Your task to perform on an android device: Open wifi settings Image 0: 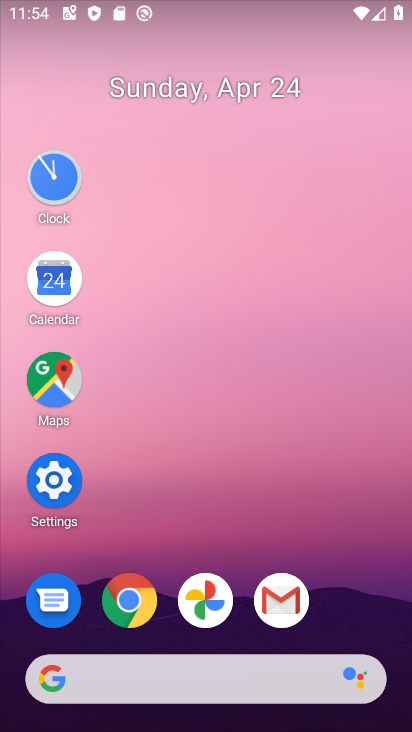
Step 0: click (44, 488)
Your task to perform on an android device: Open wifi settings Image 1: 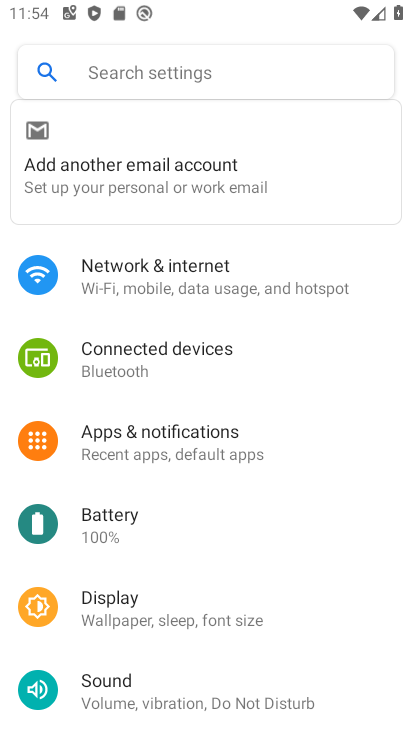
Step 1: click (136, 277)
Your task to perform on an android device: Open wifi settings Image 2: 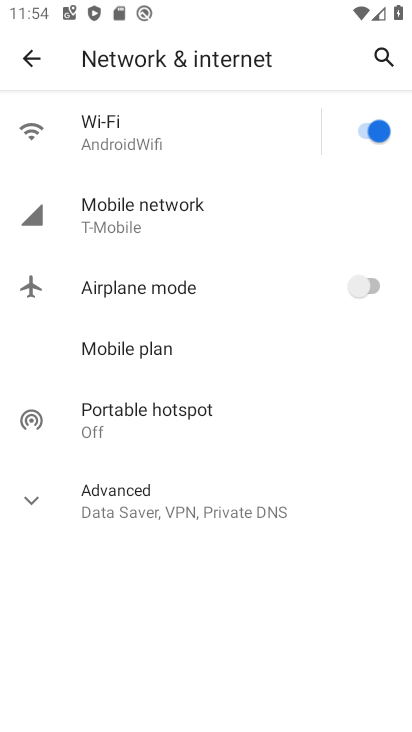
Step 2: click (87, 126)
Your task to perform on an android device: Open wifi settings Image 3: 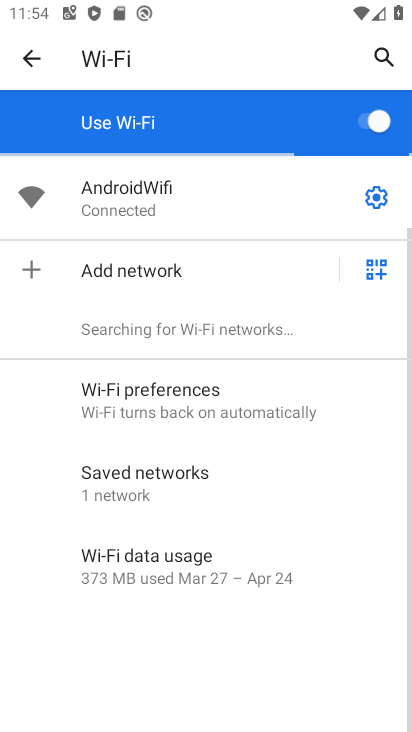
Step 3: task complete